Your task to perform on an android device: Go to display settings Image 0: 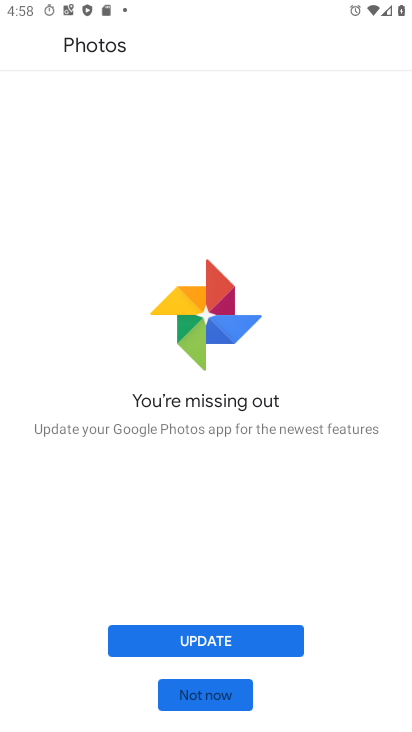
Step 0: press home button
Your task to perform on an android device: Go to display settings Image 1: 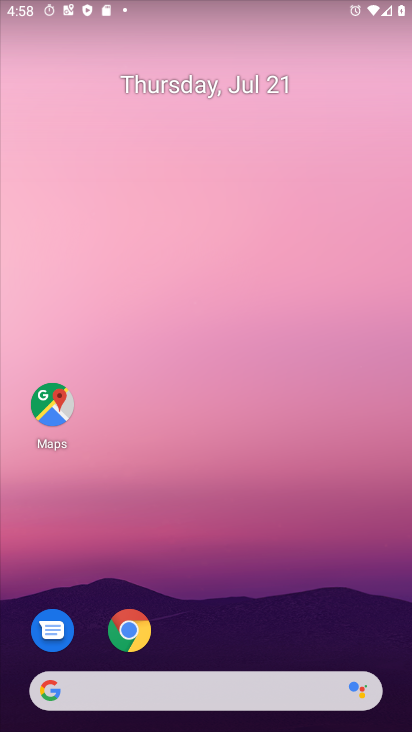
Step 1: drag from (154, 693) to (209, 92)
Your task to perform on an android device: Go to display settings Image 2: 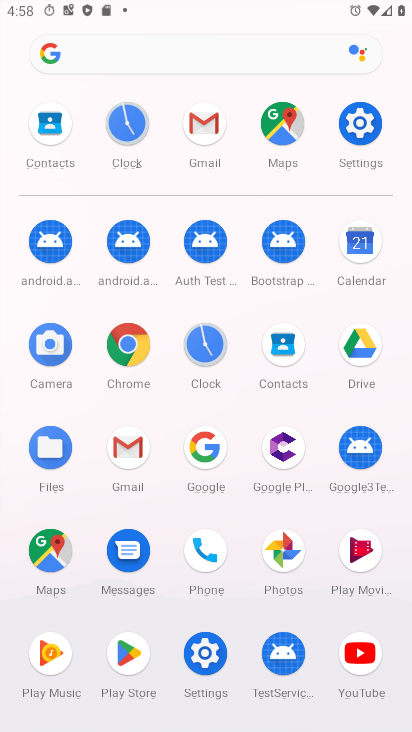
Step 2: click (359, 120)
Your task to perform on an android device: Go to display settings Image 3: 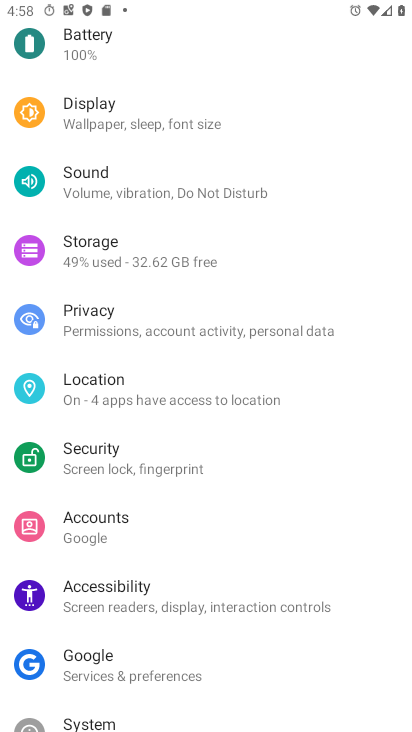
Step 3: click (151, 121)
Your task to perform on an android device: Go to display settings Image 4: 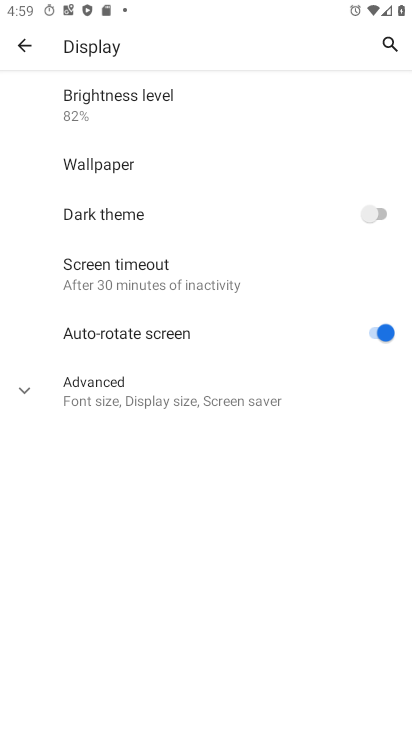
Step 4: task complete